Your task to perform on an android device: Open eBay Image 0: 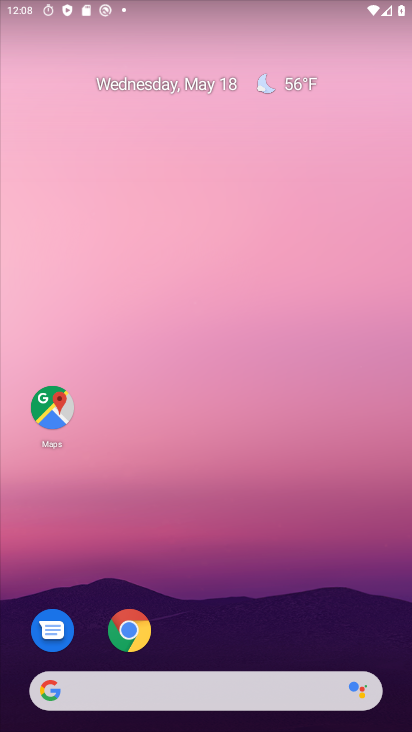
Step 0: click (126, 624)
Your task to perform on an android device: Open eBay Image 1: 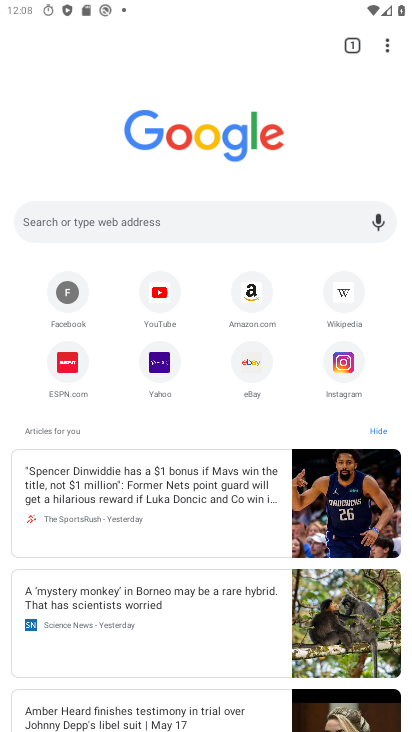
Step 1: click (255, 363)
Your task to perform on an android device: Open eBay Image 2: 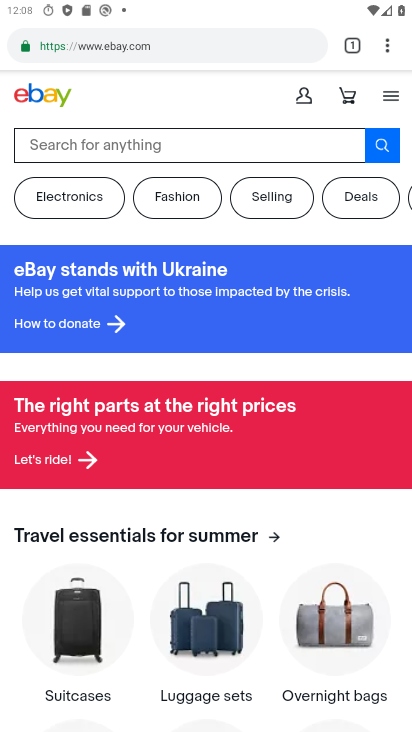
Step 2: task complete